Your task to perform on an android device: see creations saved in the google photos Image 0: 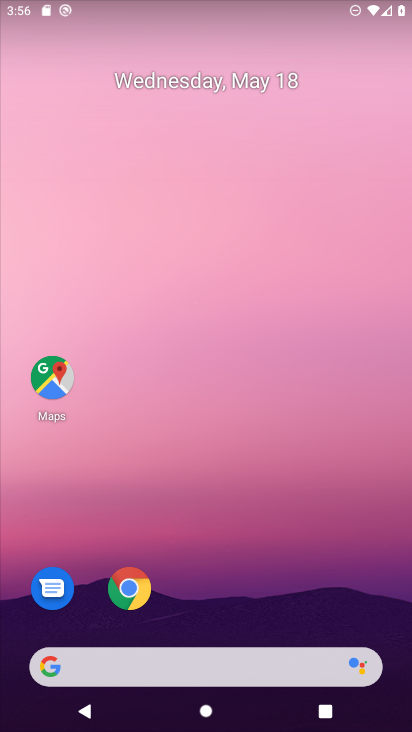
Step 0: drag from (251, 547) to (252, 191)
Your task to perform on an android device: see creations saved in the google photos Image 1: 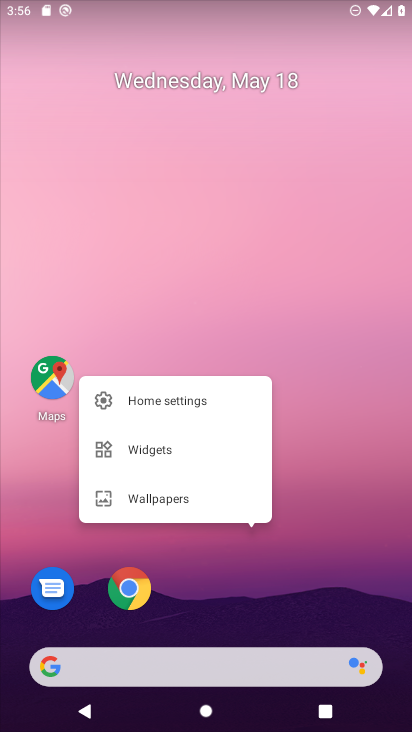
Step 1: click (316, 490)
Your task to perform on an android device: see creations saved in the google photos Image 2: 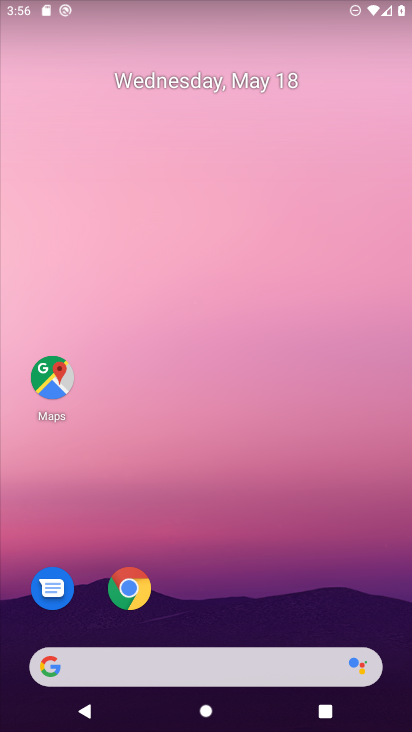
Step 2: drag from (276, 563) to (266, 125)
Your task to perform on an android device: see creations saved in the google photos Image 3: 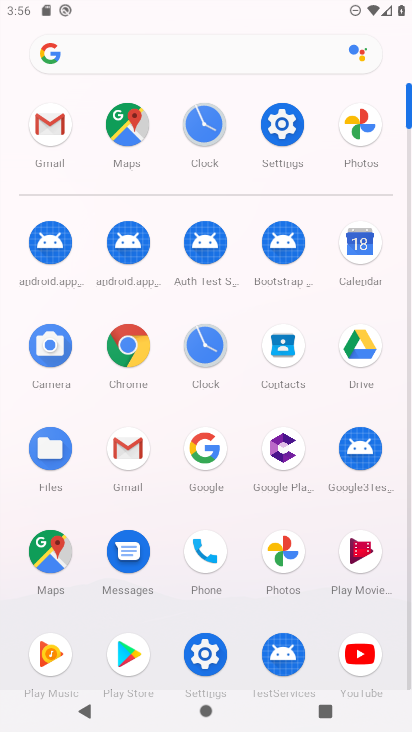
Step 3: click (280, 563)
Your task to perform on an android device: see creations saved in the google photos Image 4: 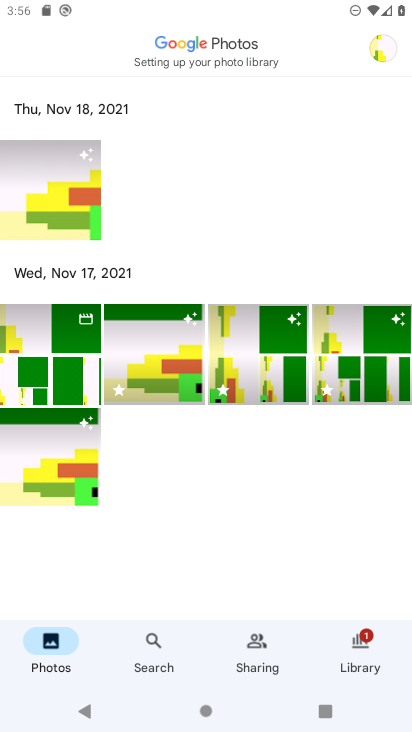
Step 4: click (373, 642)
Your task to perform on an android device: see creations saved in the google photos Image 5: 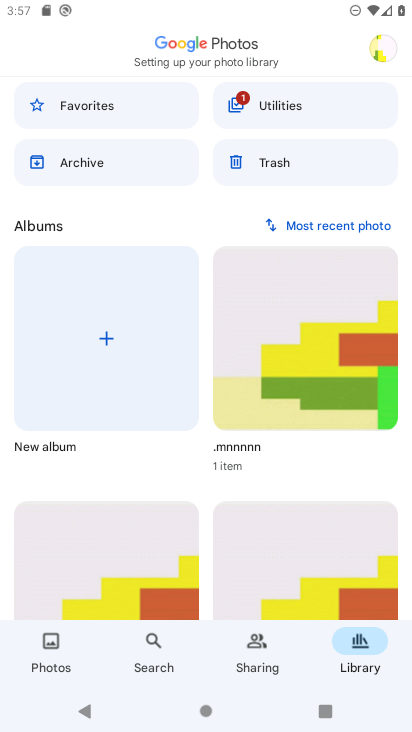
Step 5: task complete